Your task to perform on an android device: Go to Google Image 0: 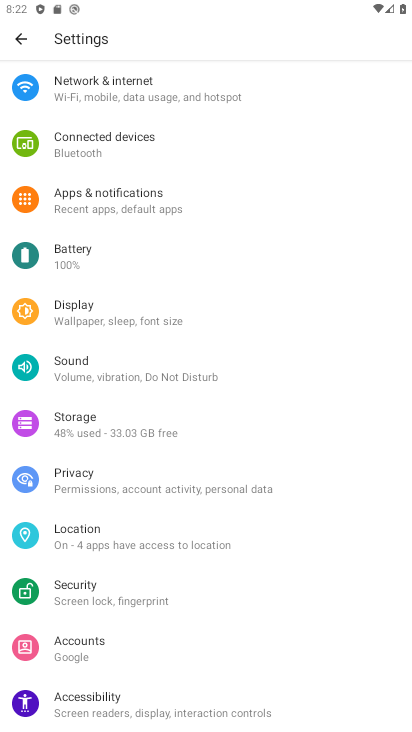
Step 0: task complete